Your task to perform on an android device: see creations saved in the google photos Image 0: 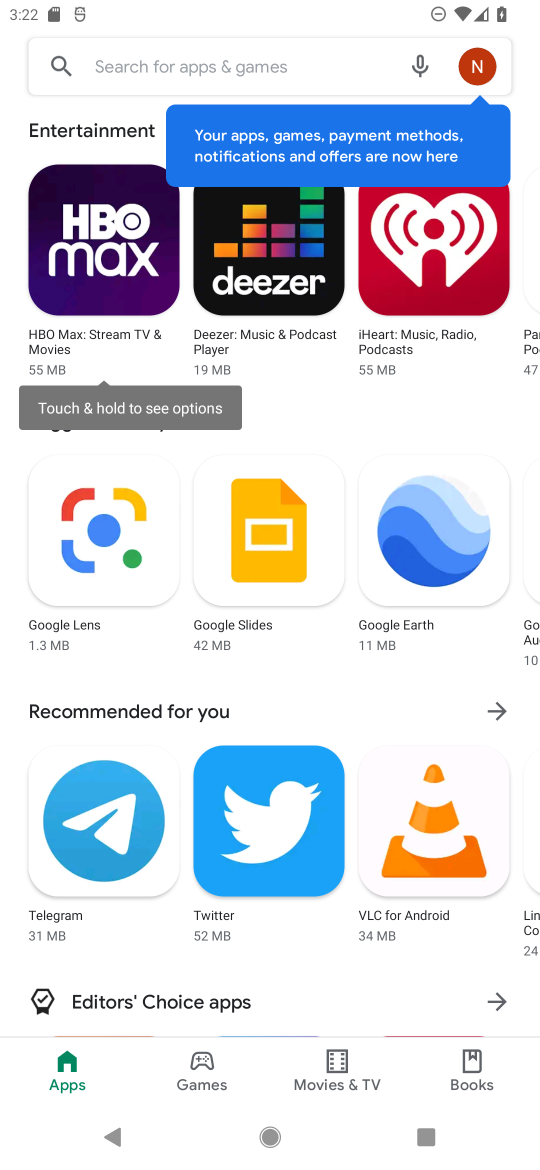
Step 0: press home button
Your task to perform on an android device: see creations saved in the google photos Image 1: 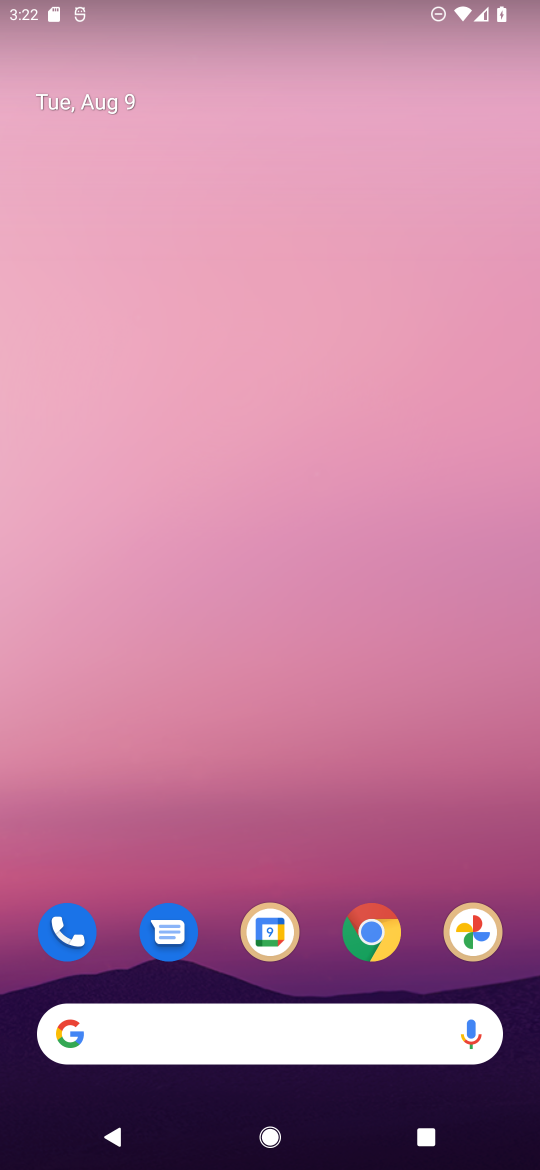
Step 1: click (470, 907)
Your task to perform on an android device: see creations saved in the google photos Image 2: 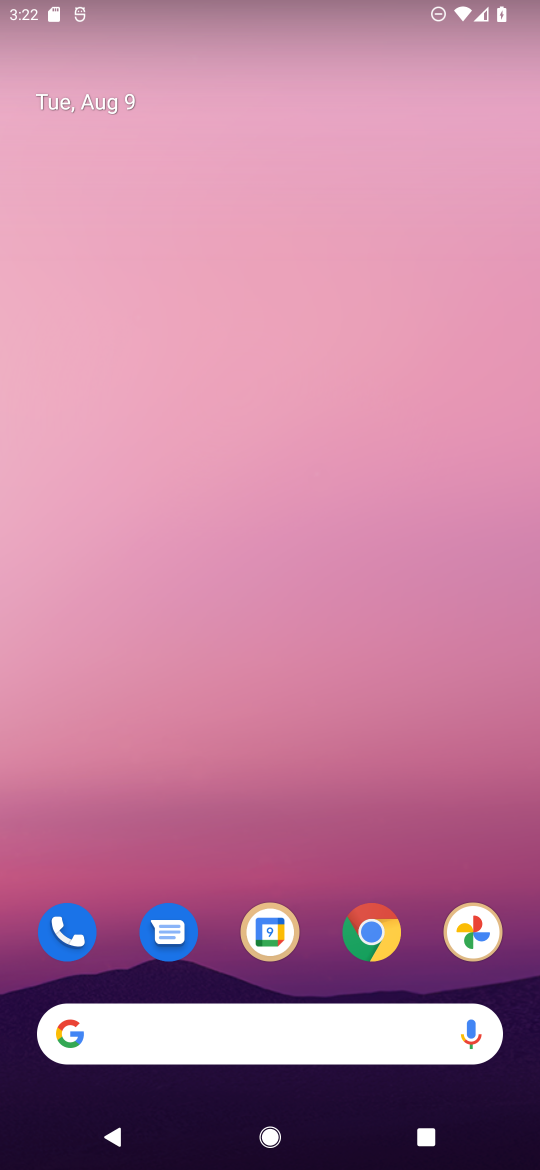
Step 2: click (470, 907)
Your task to perform on an android device: see creations saved in the google photos Image 3: 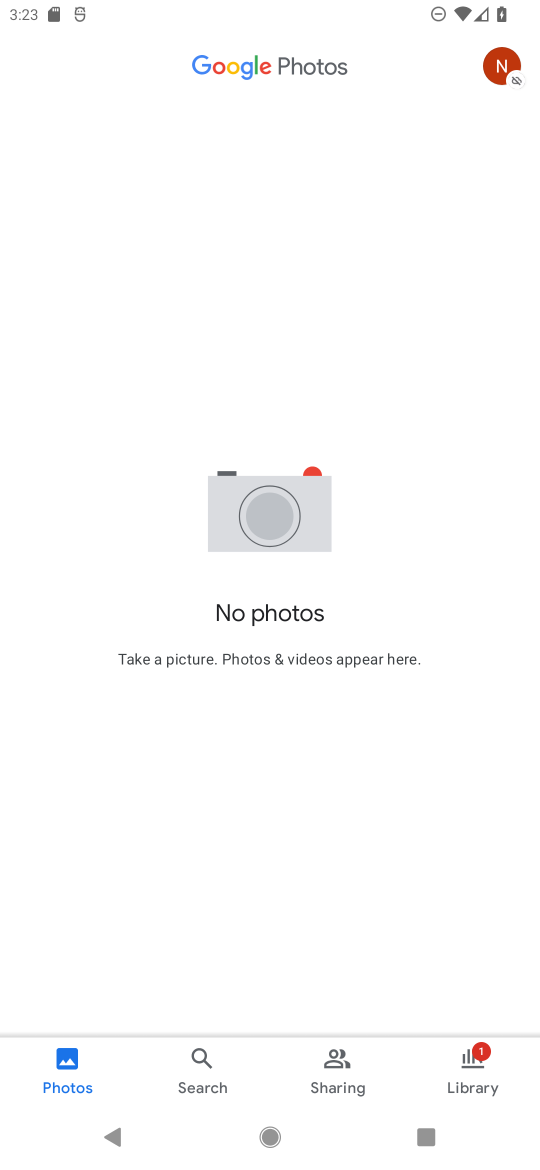
Step 3: task complete